Your task to perform on an android device: Open Youtube and go to the subscriptions tab Image 0: 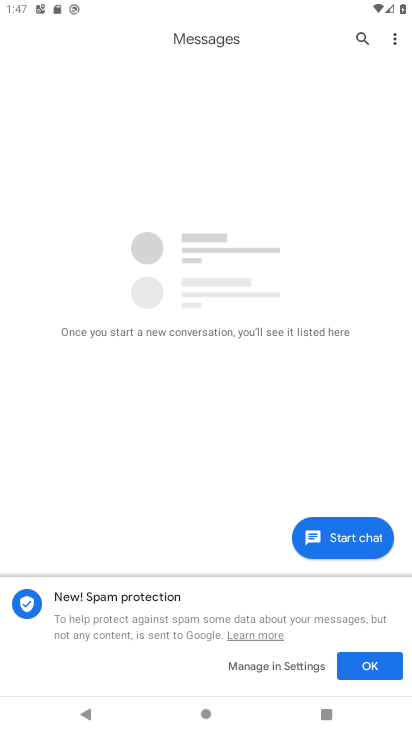
Step 0: press home button
Your task to perform on an android device: Open Youtube and go to the subscriptions tab Image 1: 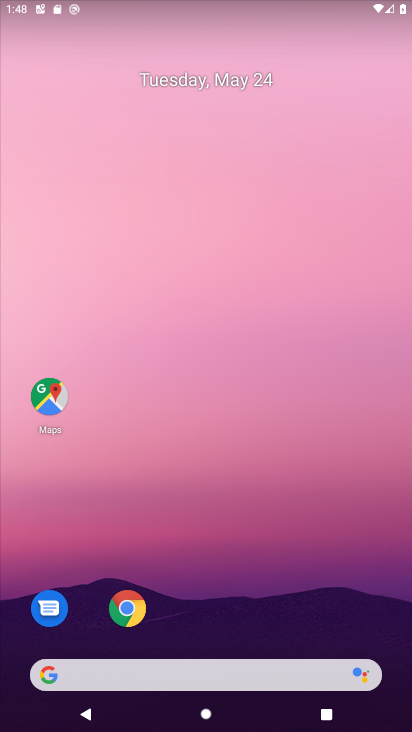
Step 1: drag from (261, 635) to (274, 220)
Your task to perform on an android device: Open Youtube and go to the subscriptions tab Image 2: 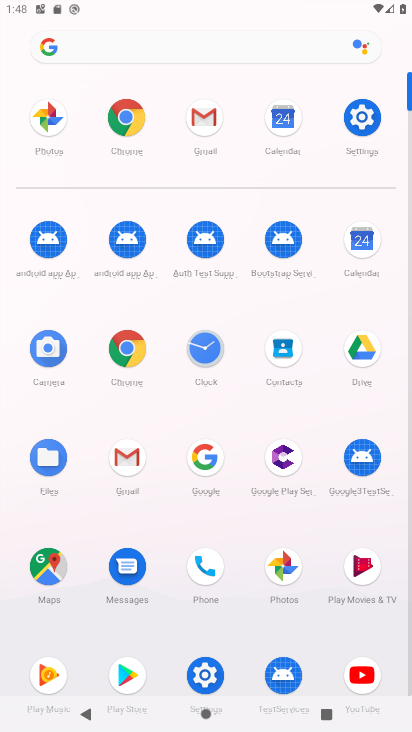
Step 2: click (380, 675)
Your task to perform on an android device: Open Youtube and go to the subscriptions tab Image 3: 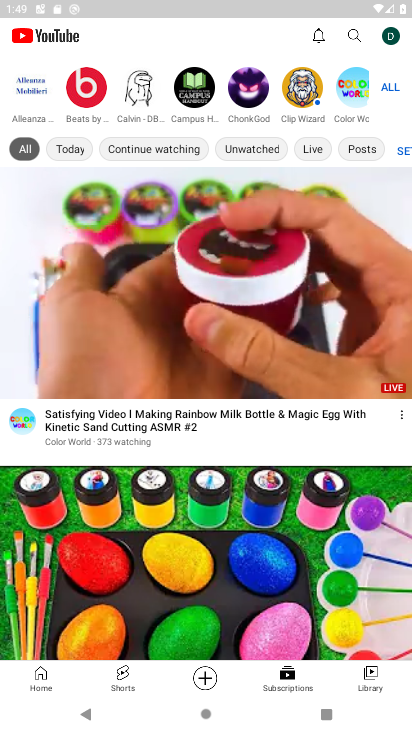
Step 3: task complete